Your task to perform on an android device: toggle show notifications on the lock screen Image 0: 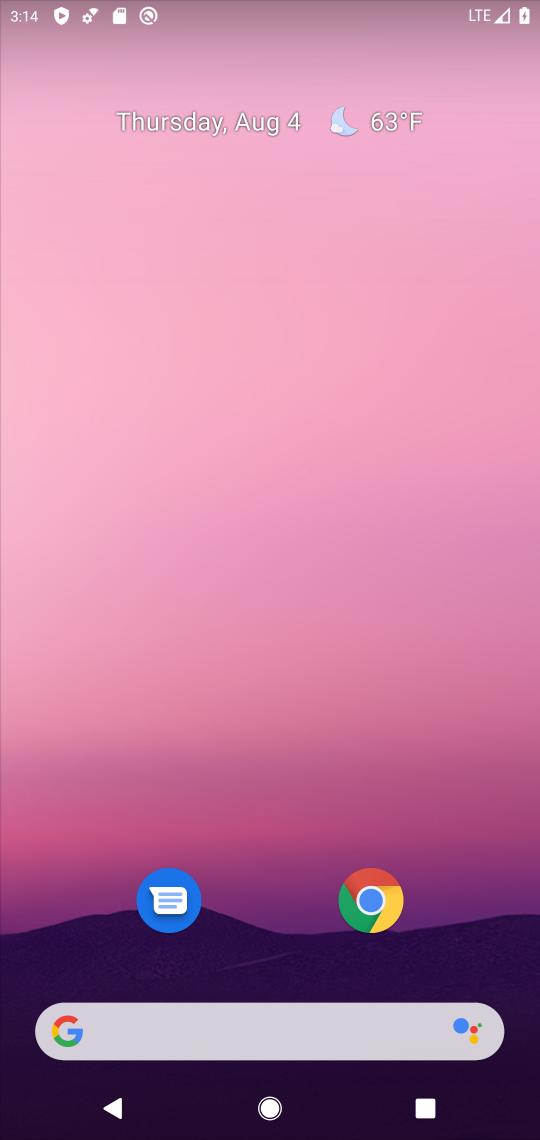
Step 0: drag from (485, 929) to (348, 78)
Your task to perform on an android device: toggle show notifications on the lock screen Image 1: 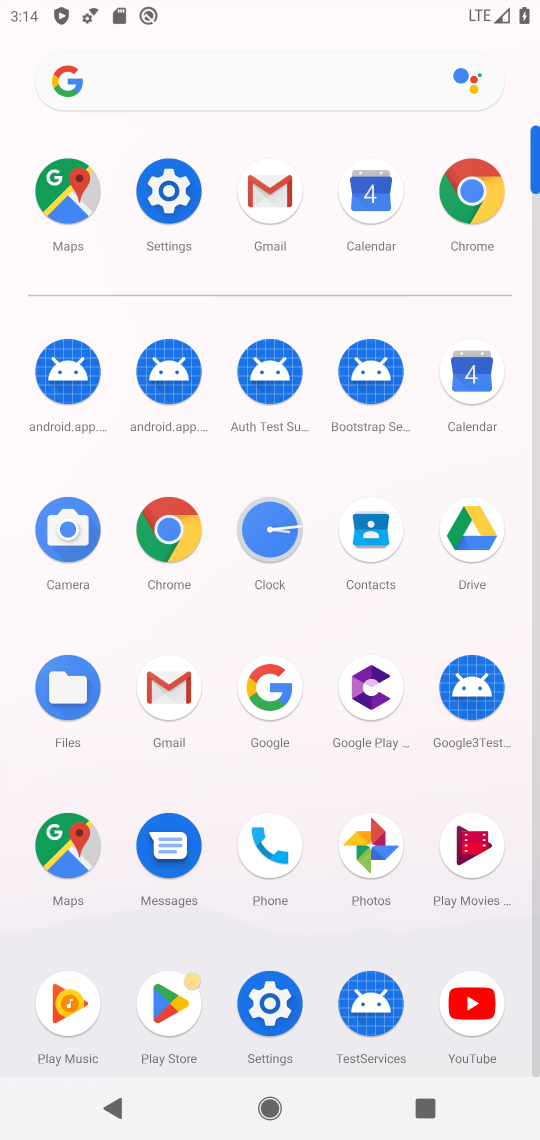
Step 1: click (169, 193)
Your task to perform on an android device: toggle show notifications on the lock screen Image 2: 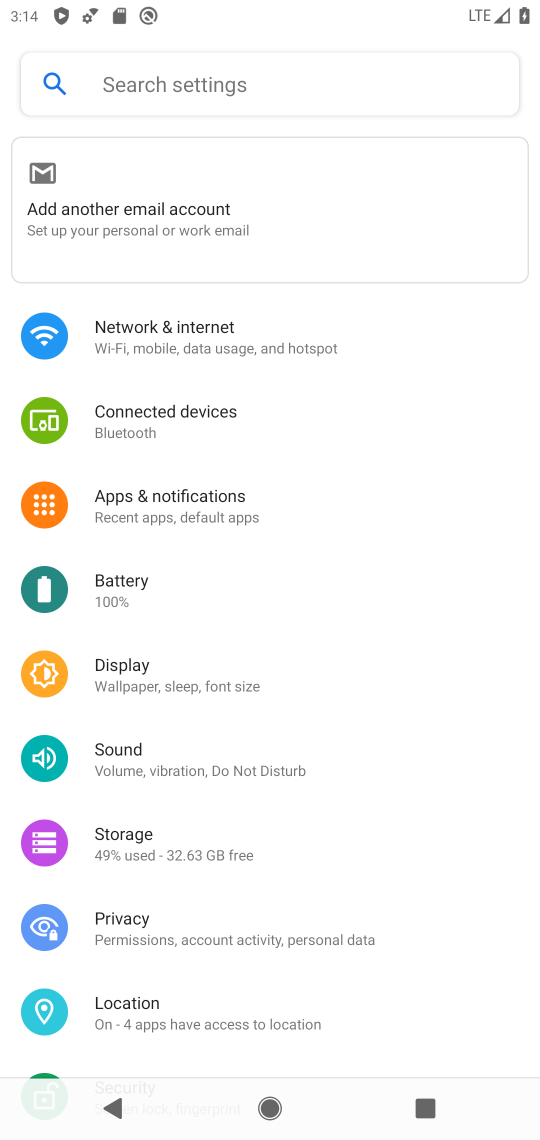
Step 2: drag from (195, 1019) to (194, 441)
Your task to perform on an android device: toggle show notifications on the lock screen Image 3: 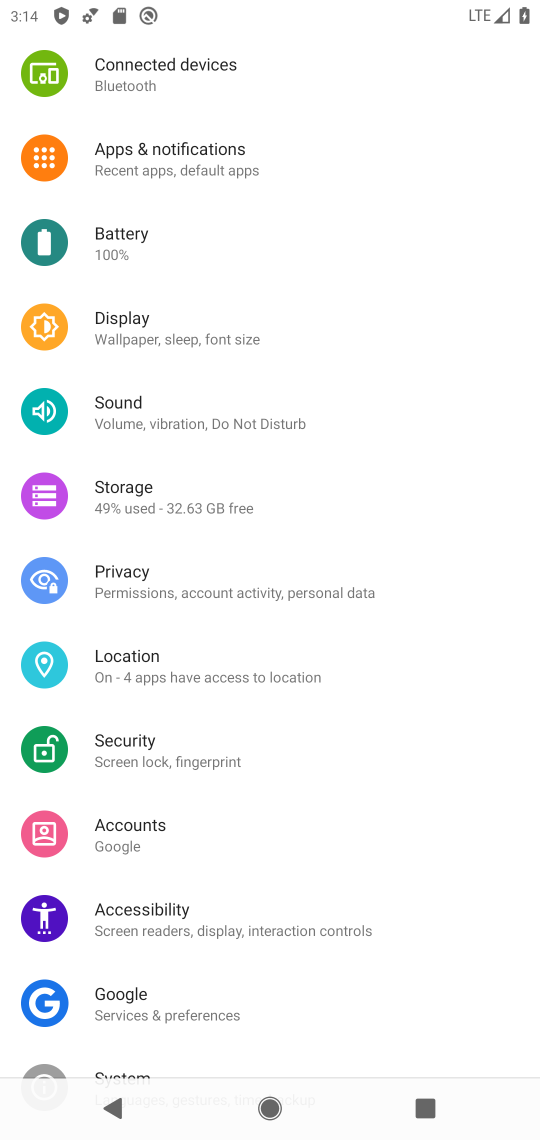
Step 3: click (269, 143)
Your task to perform on an android device: toggle show notifications on the lock screen Image 4: 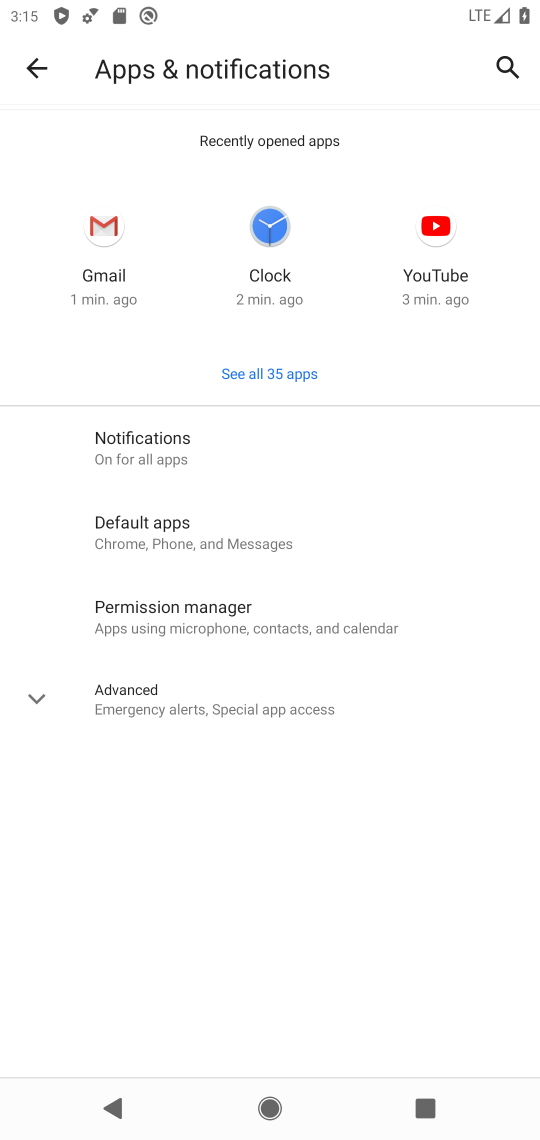
Step 4: click (210, 432)
Your task to perform on an android device: toggle show notifications on the lock screen Image 5: 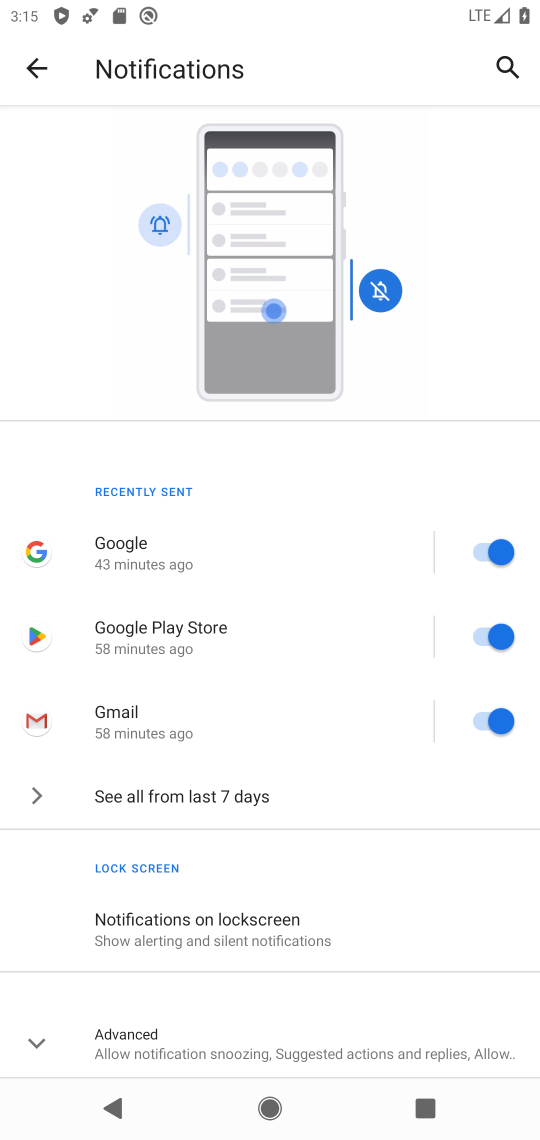
Step 5: click (398, 937)
Your task to perform on an android device: toggle show notifications on the lock screen Image 6: 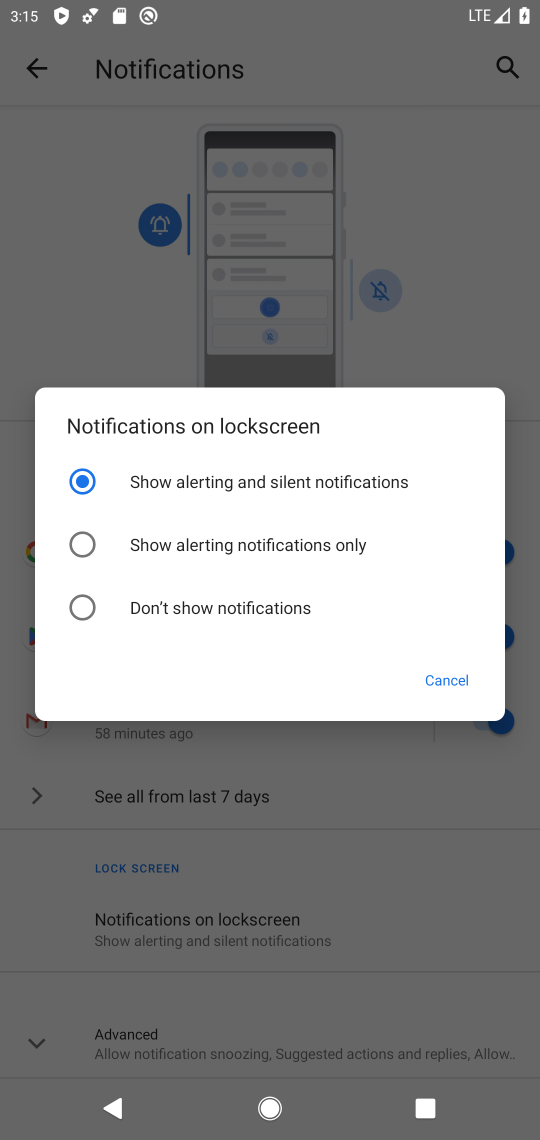
Step 6: click (192, 540)
Your task to perform on an android device: toggle show notifications on the lock screen Image 7: 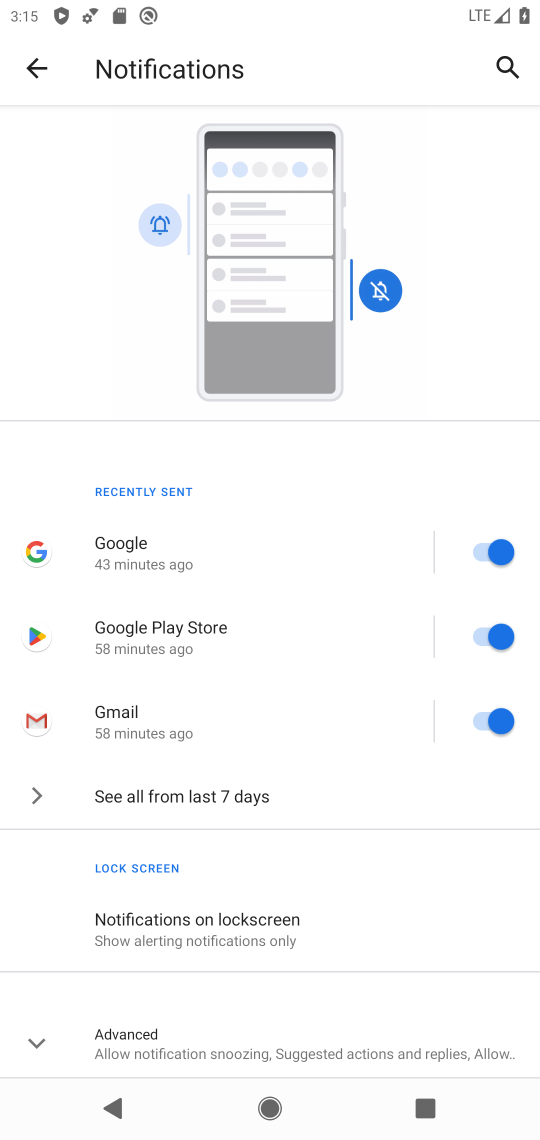
Step 7: task complete